Your task to perform on an android device: check battery use Image 0: 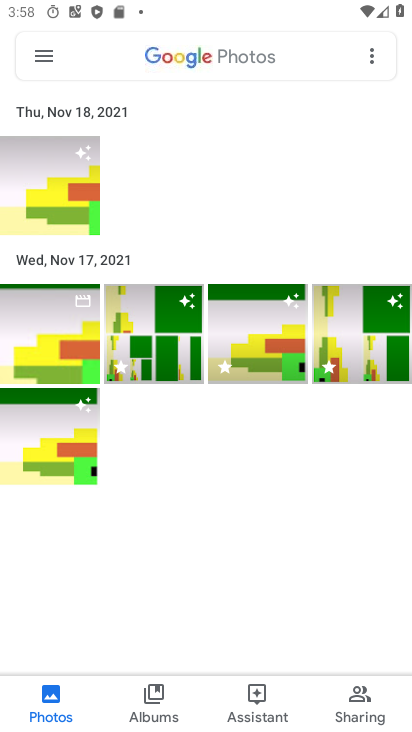
Step 0: press home button
Your task to perform on an android device: check battery use Image 1: 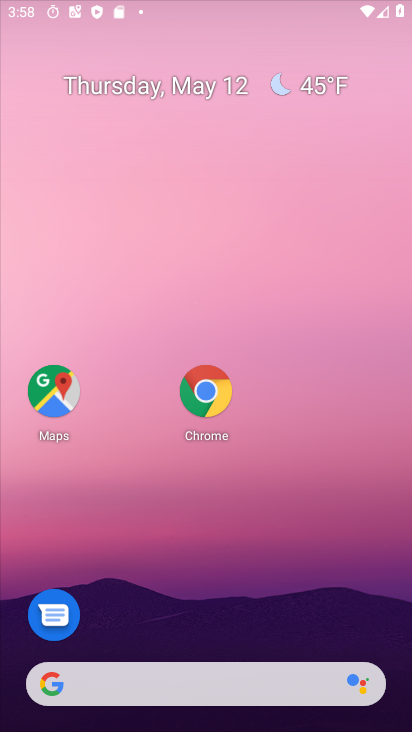
Step 1: drag from (237, 512) to (270, 59)
Your task to perform on an android device: check battery use Image 2: 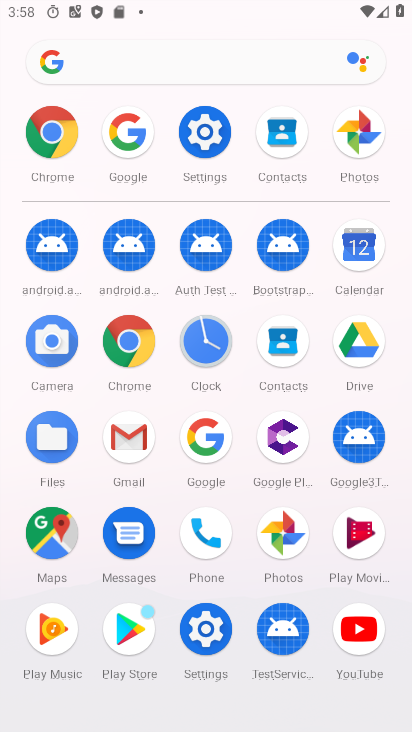
Step 2: click (204, 115)
Your task to perform on an android device: check battery use Image 3: 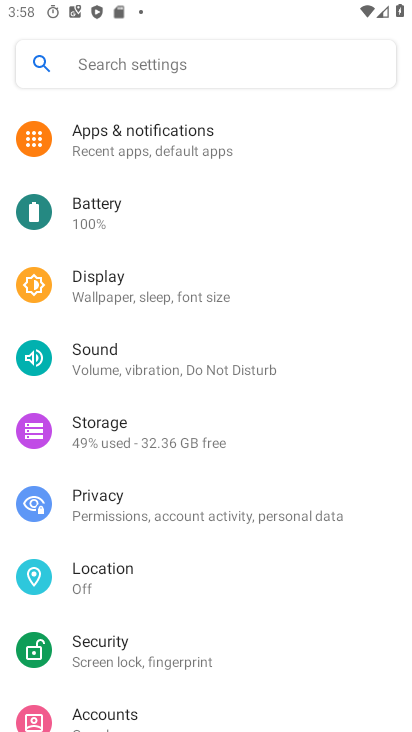
Step 3: drag from (106, 663) to (152, 464)
Your task to perform on an android device: check battery use Image 4: 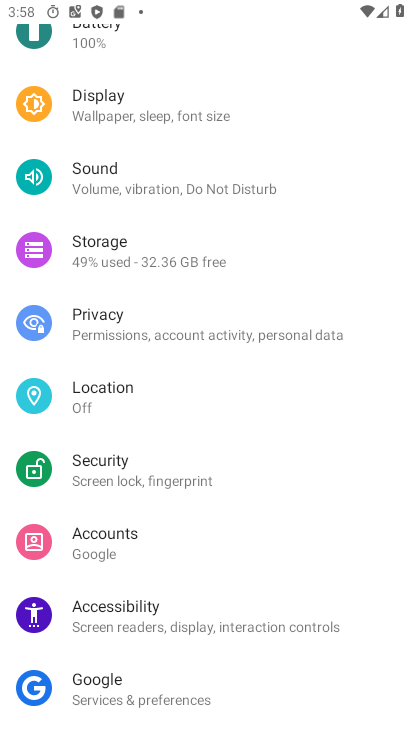
Step 4: click (117, 43)
Your task to perform on an android device: check battery use Image 5: 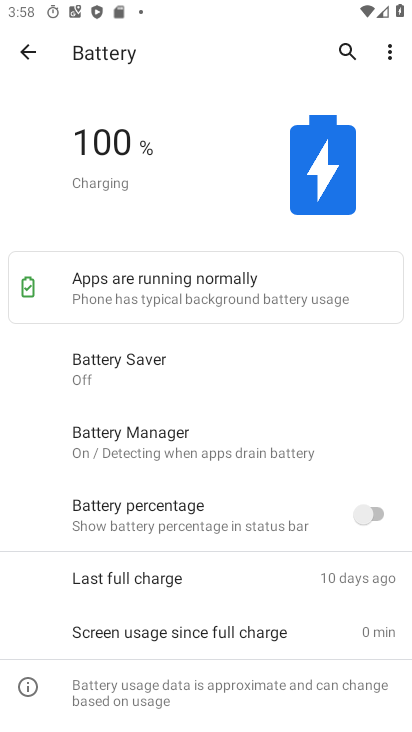
Step 5: click (380, 47)
Your task to perform on an android device: check battery use Image 6: 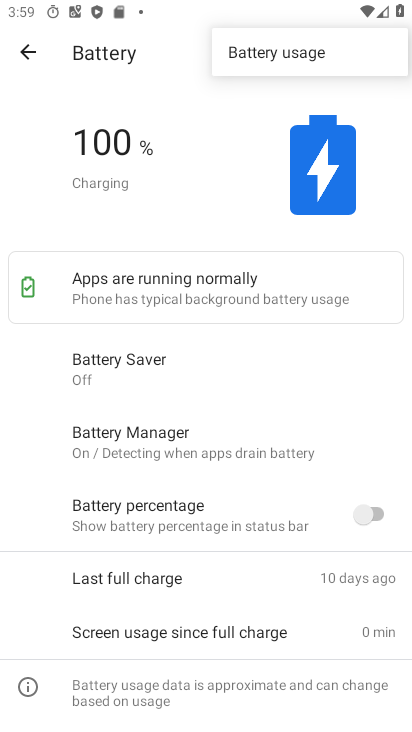
Step 6: click (309, 57)
Your task to perform on an android device: check battery use Image 7: 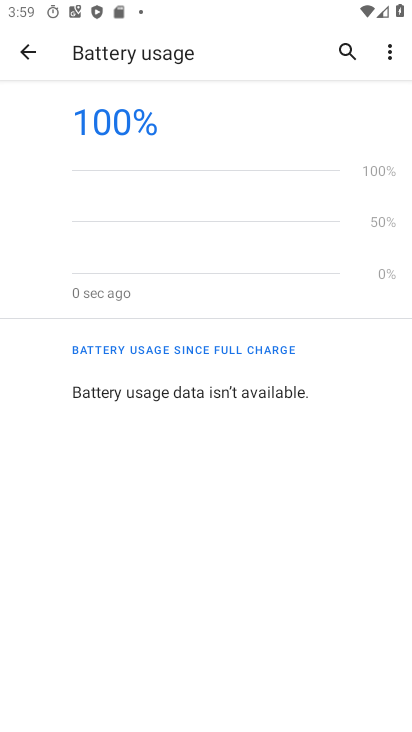
Step 7: task complete